Your task to perform on an android device: Go to sound settings Image 0: 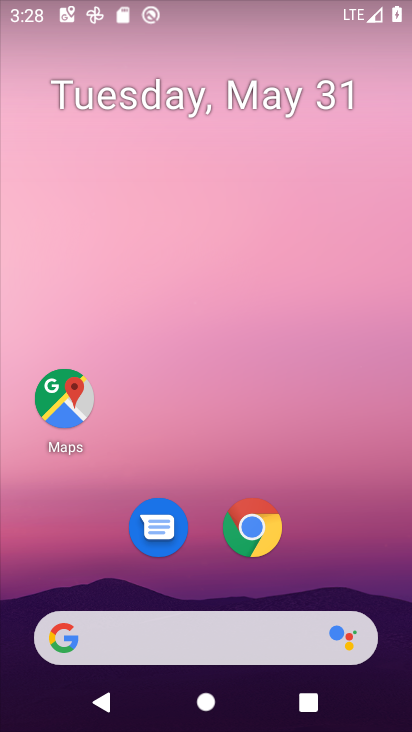
Step 0: click (396, 482)
Your task to perform on an android device: Go to sound settings Image 1: 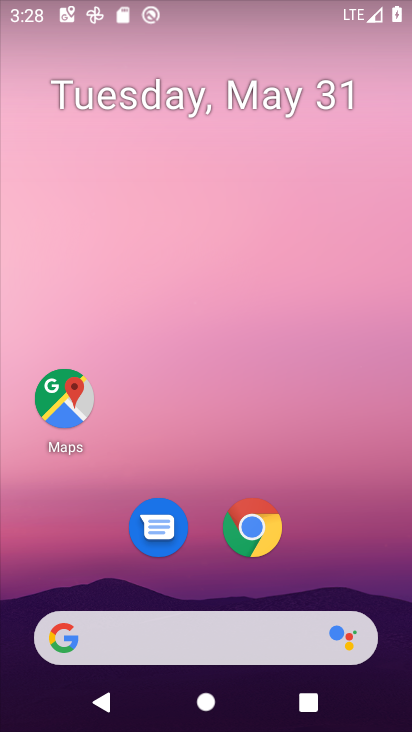
Step 1: drag from (323, 555) to (253, 76)
Your task to perform on an android device: Go to sound settings Image 2: 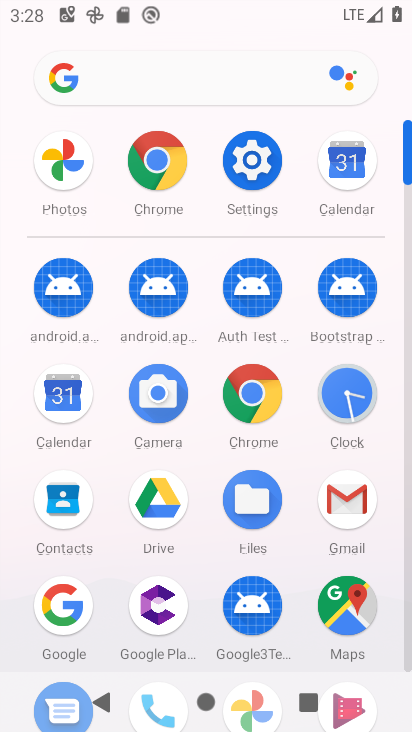
Step 2: click (259, 174)
Your task to perform on an android device: Go to sound settings Image 3: 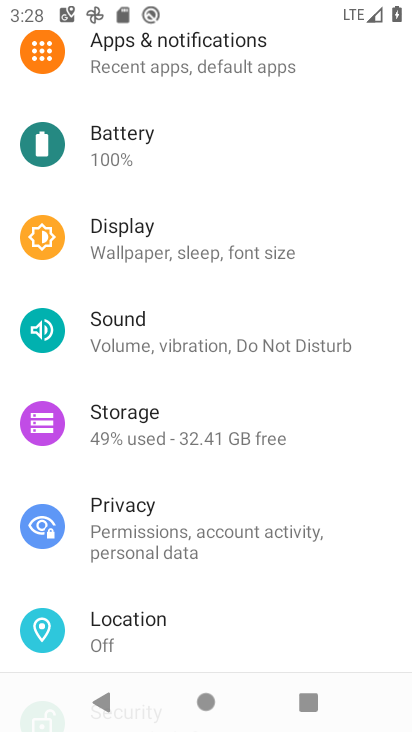
Step 3: click (186, 346)
Your task to perform on an android device: Go to sound settings Image 4: 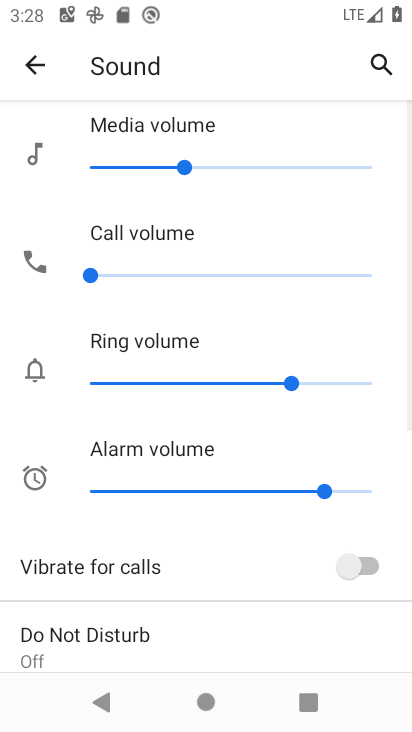
Step 4: task complete